Your task to perform on an android device: toggle airplane mode Image 0: 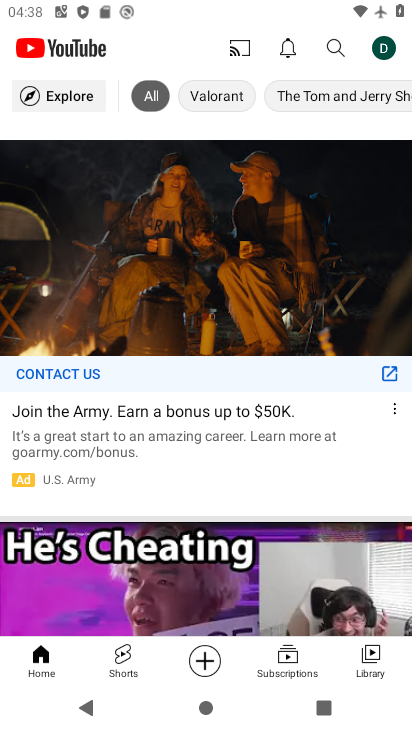
Step 0: press home button
Your task to perform on an android device: toggle airplane mode Image 1: 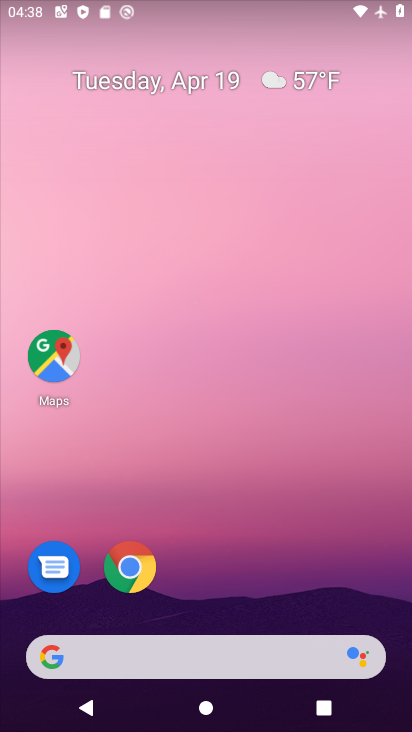
Step 1: drag from (382, 589) to (376, 241)
Your task to perform on an android device: toggle airplane mode Image 2: 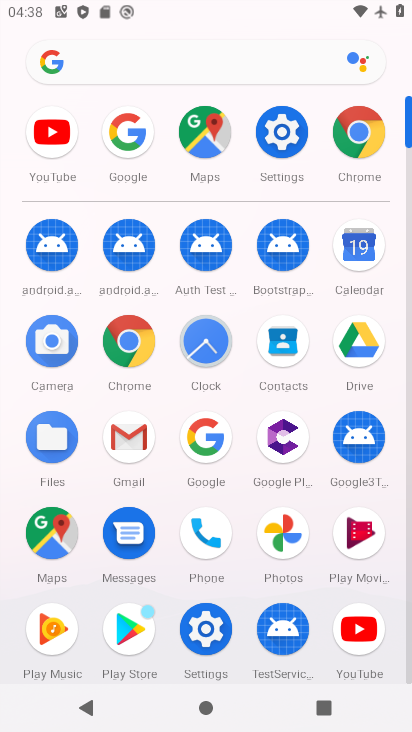
Step 2: click (220, 630)
Your task to perform on an android device: toggle airplane mode Image 3: 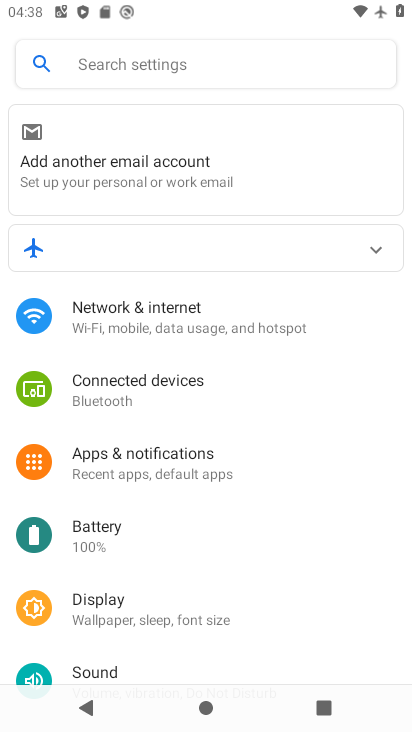
Step 3: drag from (326, 612) to (318, 446)
Your task to perform on an android device: toggle airplane mode Image 4: 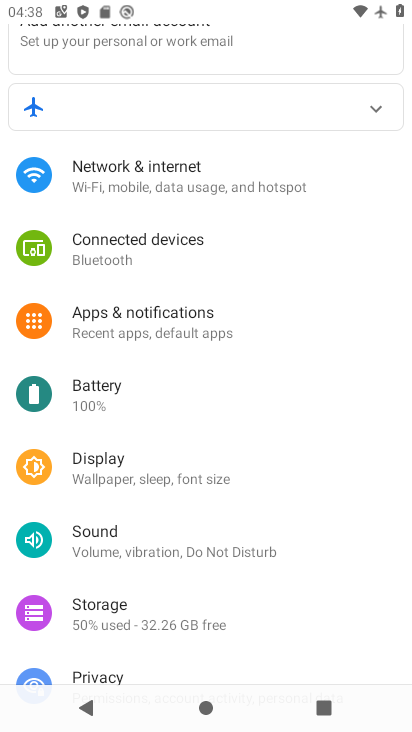
Step 4: drag from (321, 598) to (323, 423)
Your task to perform on an android device: toggle airplane mode Image 5: 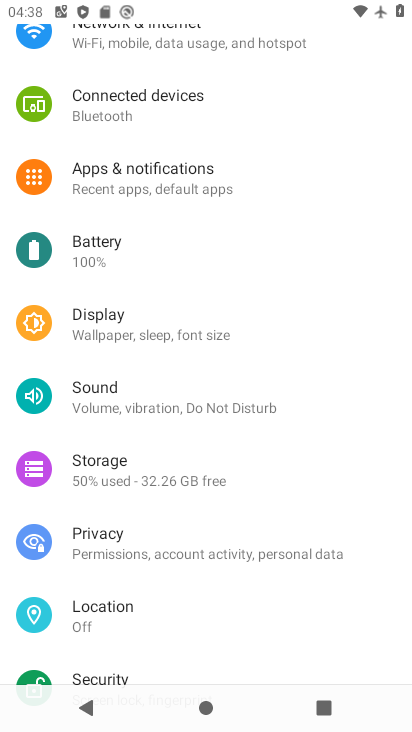
Step 5: drag from (358, 621) to (362, 491)
Your task to perform on an android device: toggle airplane mode Image 6: 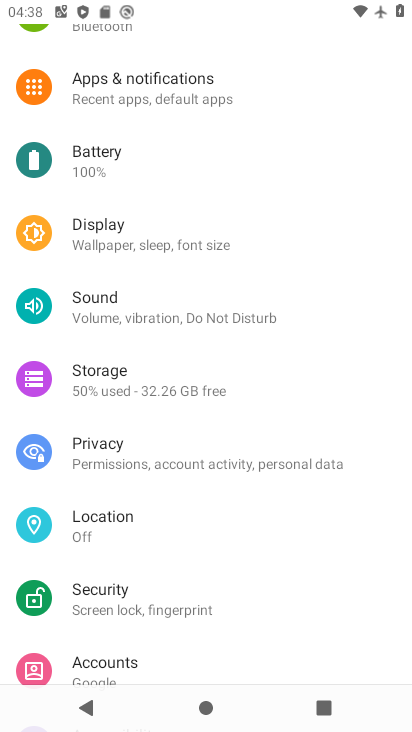
Step 6: drag from (369, 593) to (379, 430)
Your task to perform on an android device: toggle airplane mode Image 7: 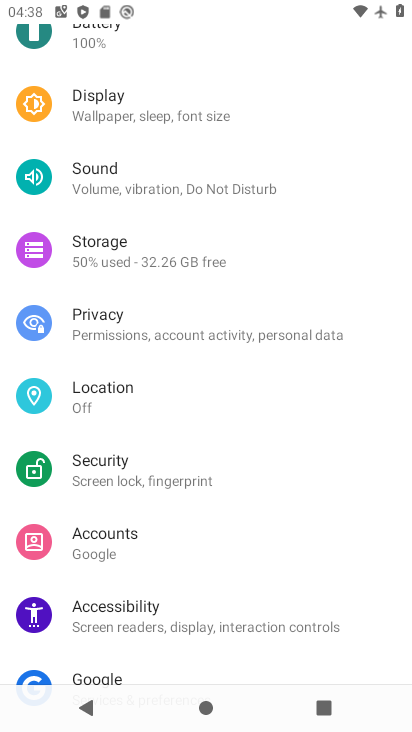
Step 7: drag from (361, 617) to (359, 444)
Your task to perform on an android device: toggle airplane mode Image 8: 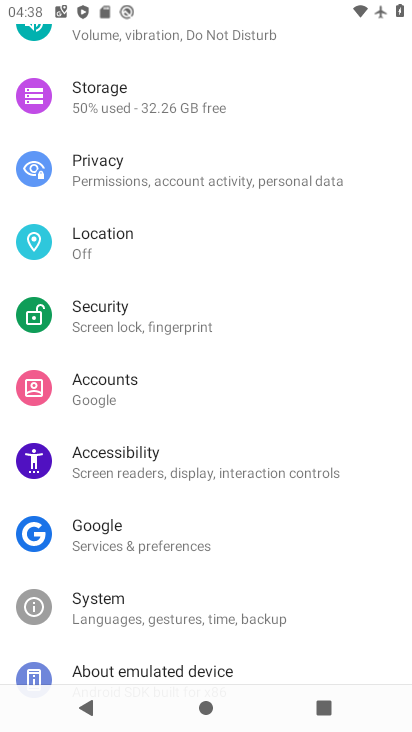
Step 8: drag from (354, 624) to (350, 446)
Your task to perform on an android device: toggle airplane mode Image 9: 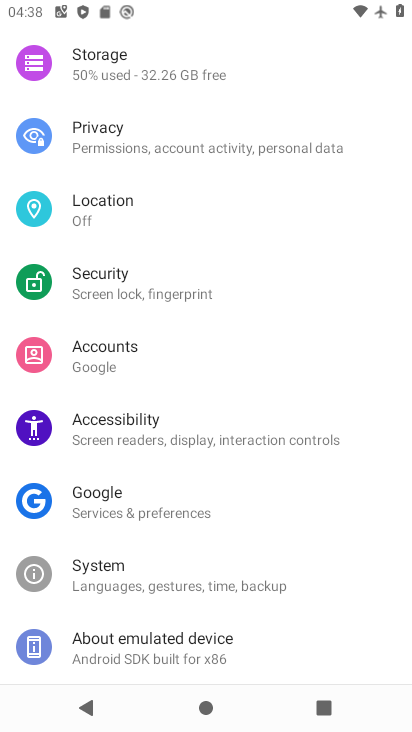
Step 9: drag from (363, 363) to (356, 602)
Your task to perform on an android device: toggle airplane mode Image 10: 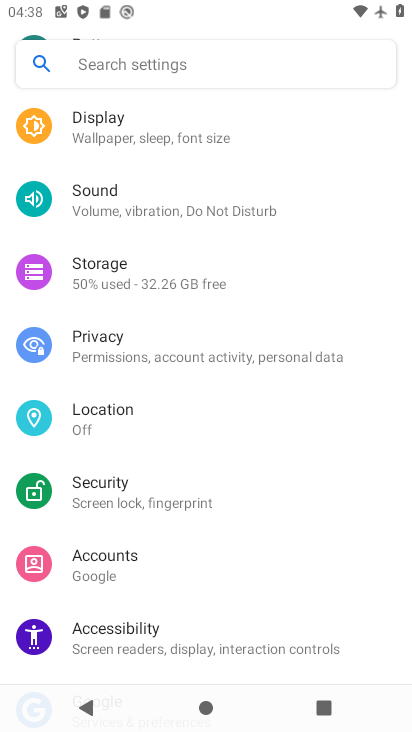
Step 10: drag from (380, 375) to (378, 583)
Your task to perform on an android device: toggle airplane mode Image 11: 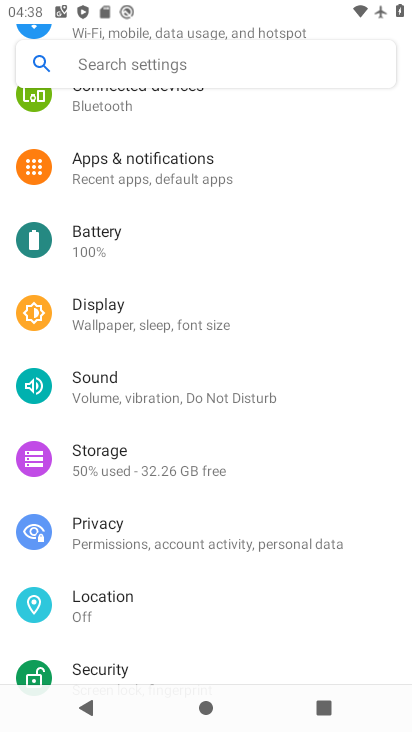
Step 11: drag from (368, 314) to (372, 509)
Your task to perform on an android device: toggle airplane mode Image 12: 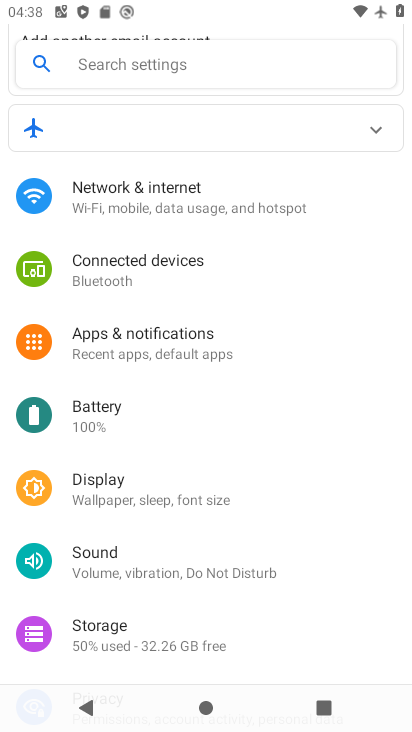
Step 12: drag from (375, 304) to (381, 474)
Your task to perform on an android device: toggle airplane mode Image 13: 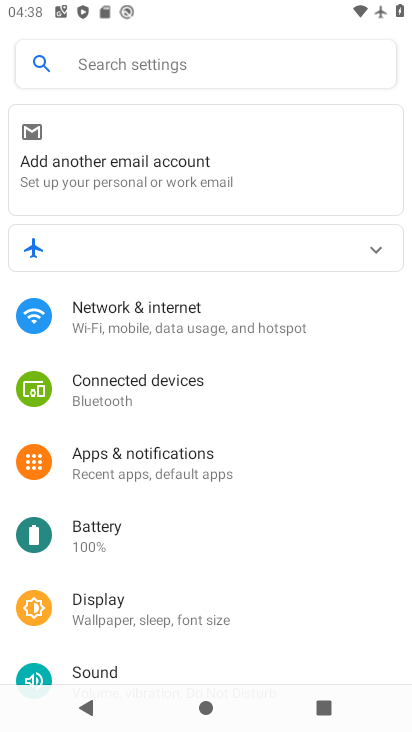
Step 13: click (268, 325)
Your task to perform on an android device: toggle airplane mode Image 14: 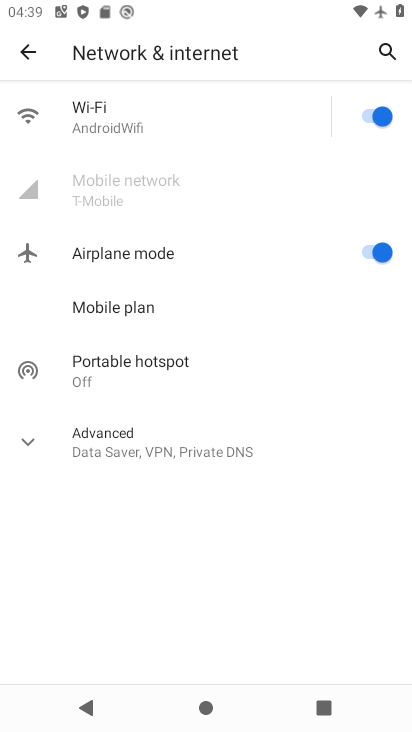
Step 14: click (366, 252)
Your task to perform on an android device: toggle airplane mode Image 15: 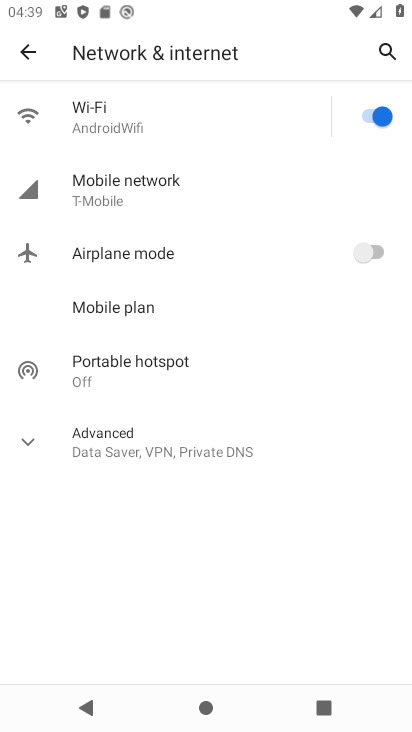
Step 15: task complete